Your task to perform on an android device: toggle translation in the chrome app Image 0: 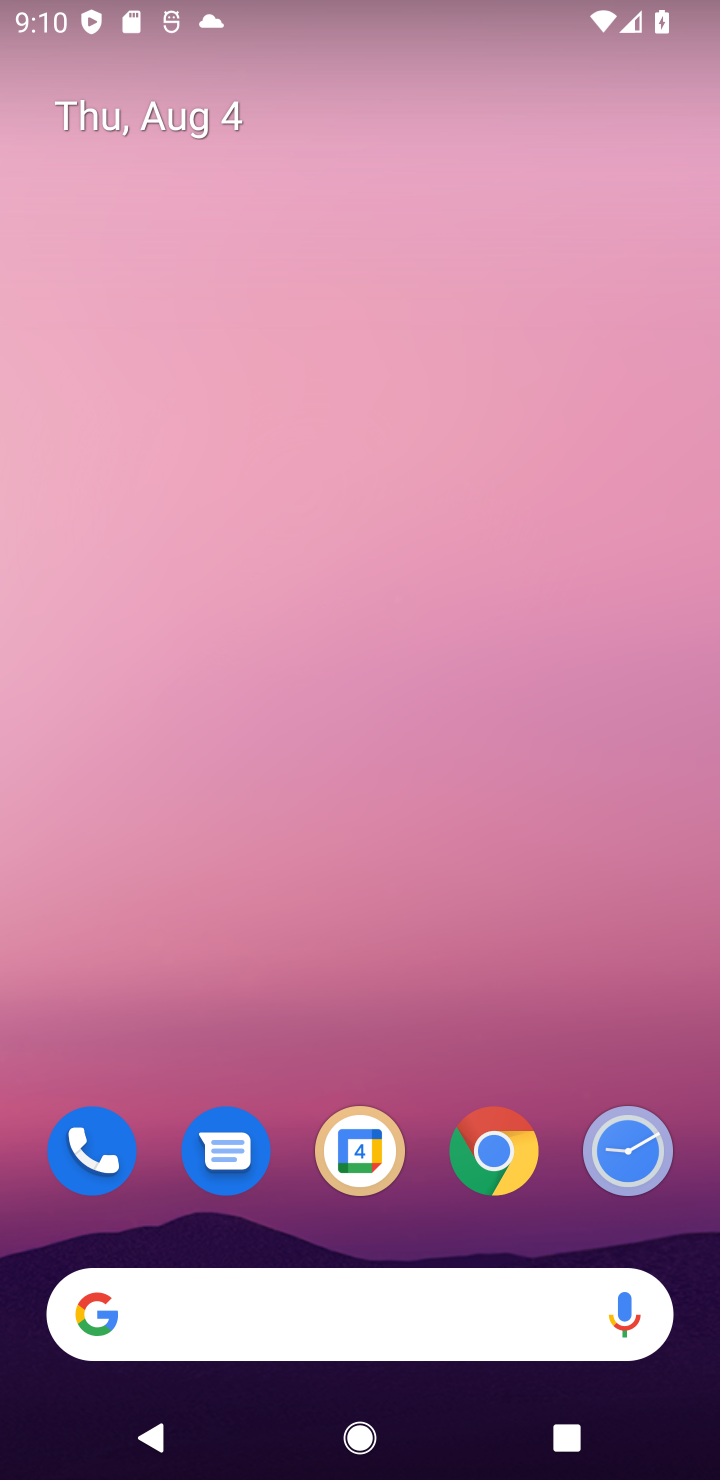
Step 0: click (535, 1157)
Your task to perform on an android device: toggle translation in the chrome app Image 1: 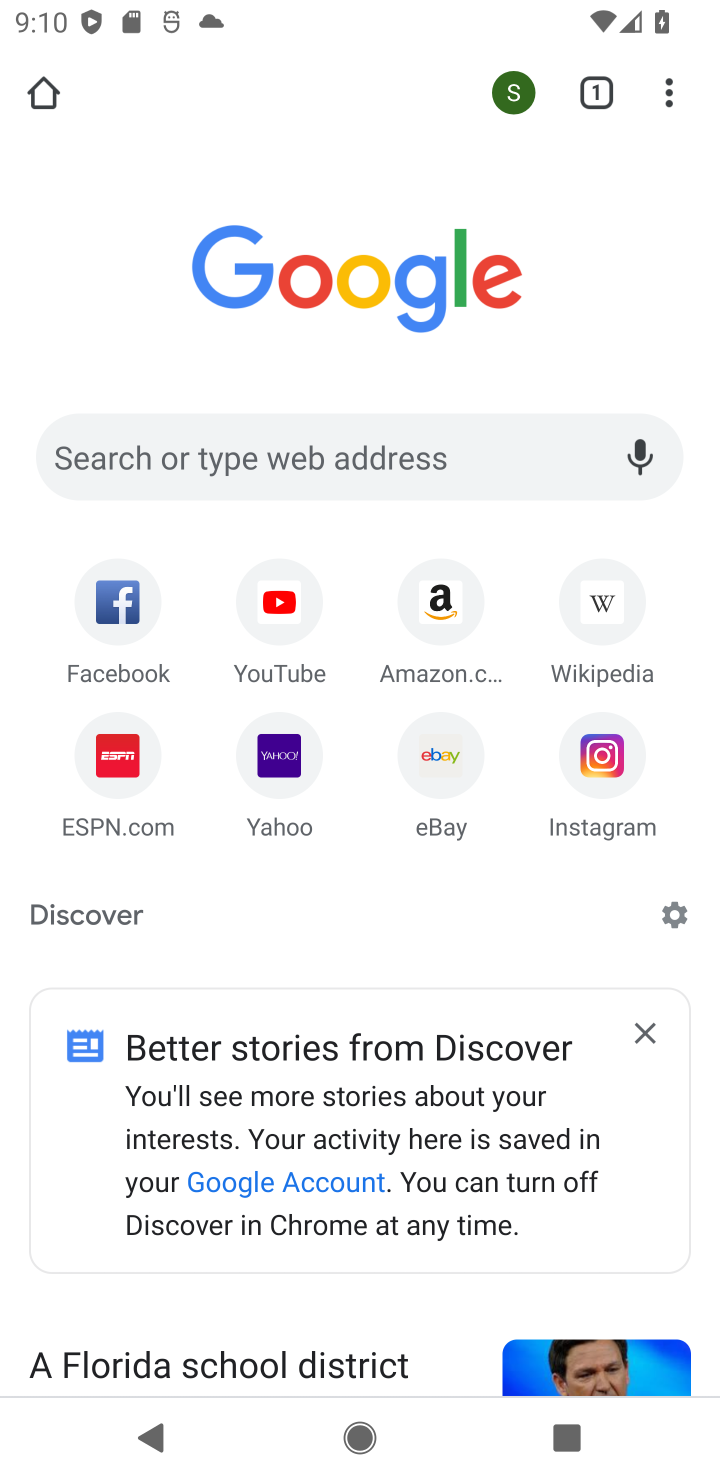
Step 1: click (675, 118)
Your task to perform on an android device: toggle translation in the chrome app Image 2: 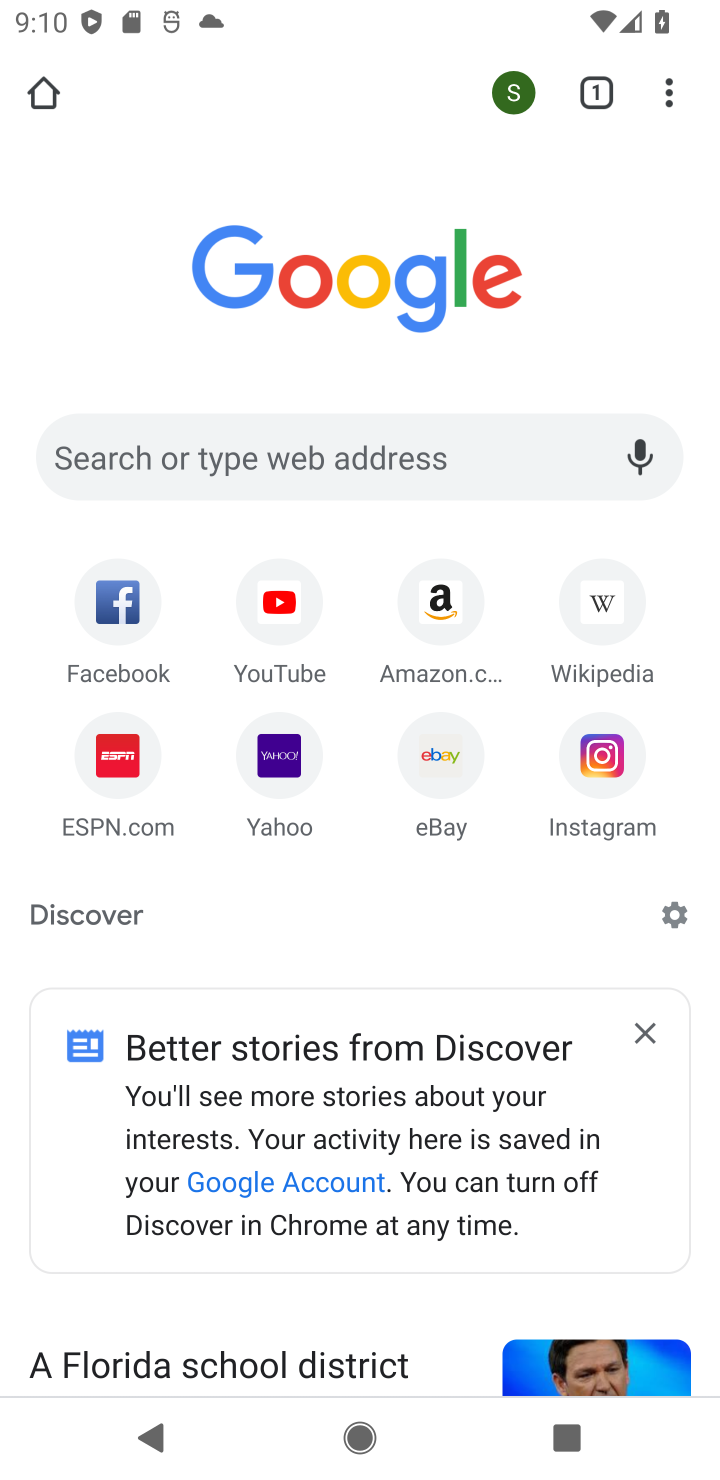
Step 2: click (690, 90)
Your task to perform on an android device: toggle translation in the chrome app Image 3: 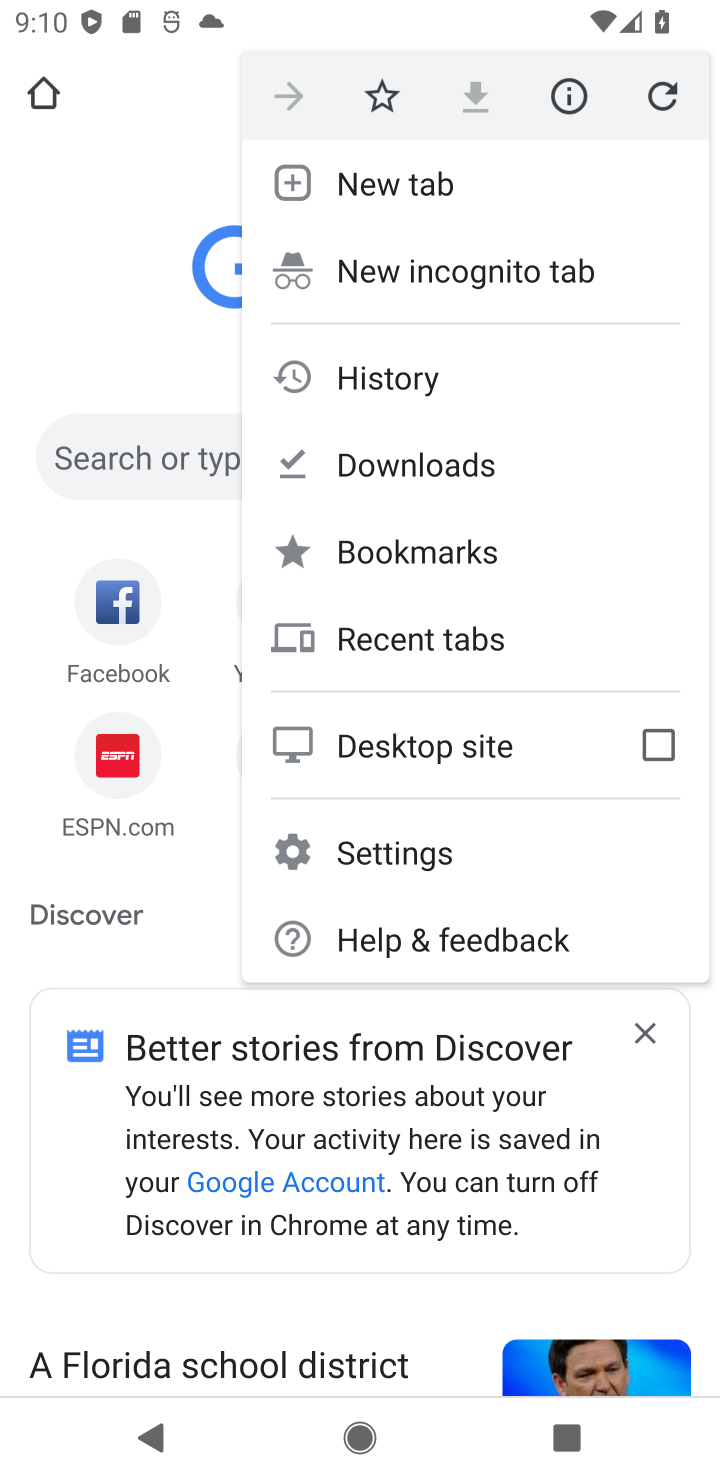
Step 3: click (494, 869)
Your task to perform on an android device: toggle translation in the chrome app Image 4: 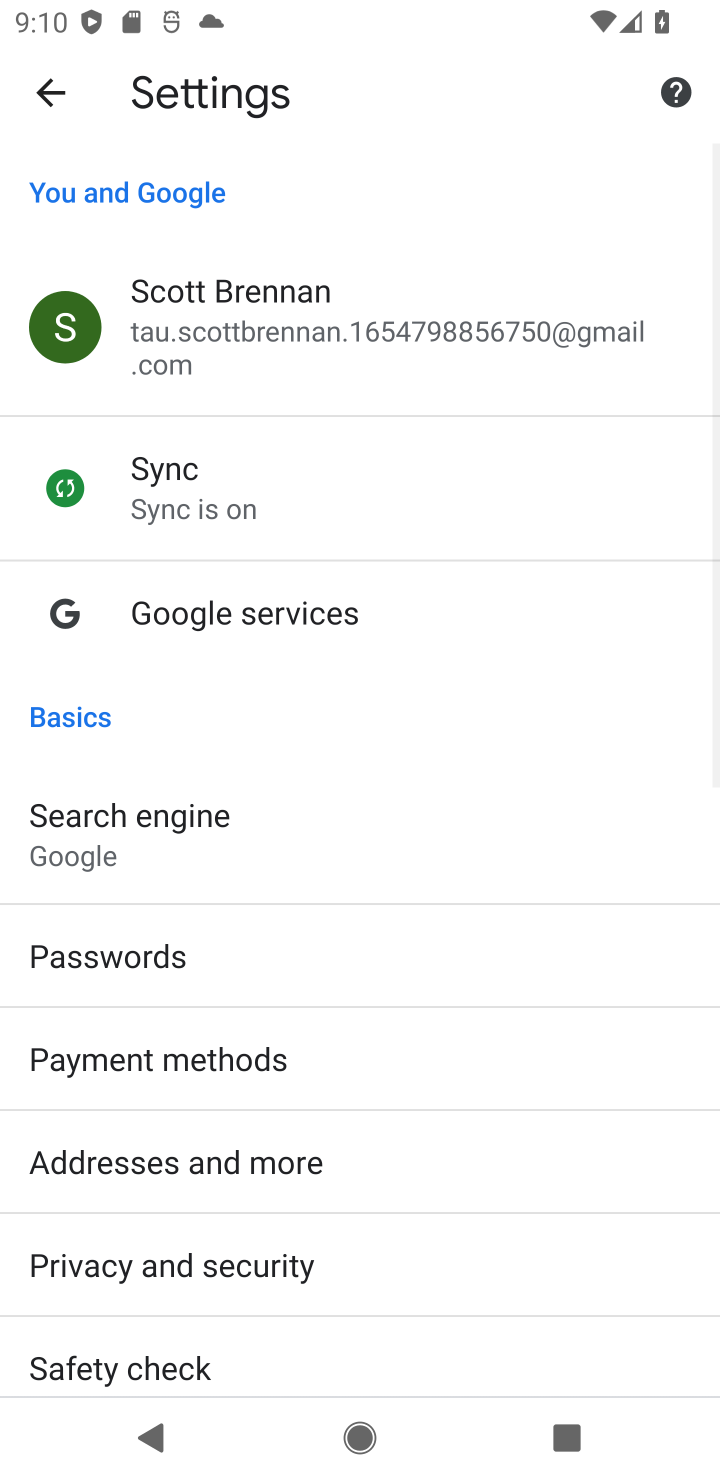
Step 4: drag from (459, 1081) to (362, 346)
Your task to perform on an android device: toggle translation in the chrome app Image 5: 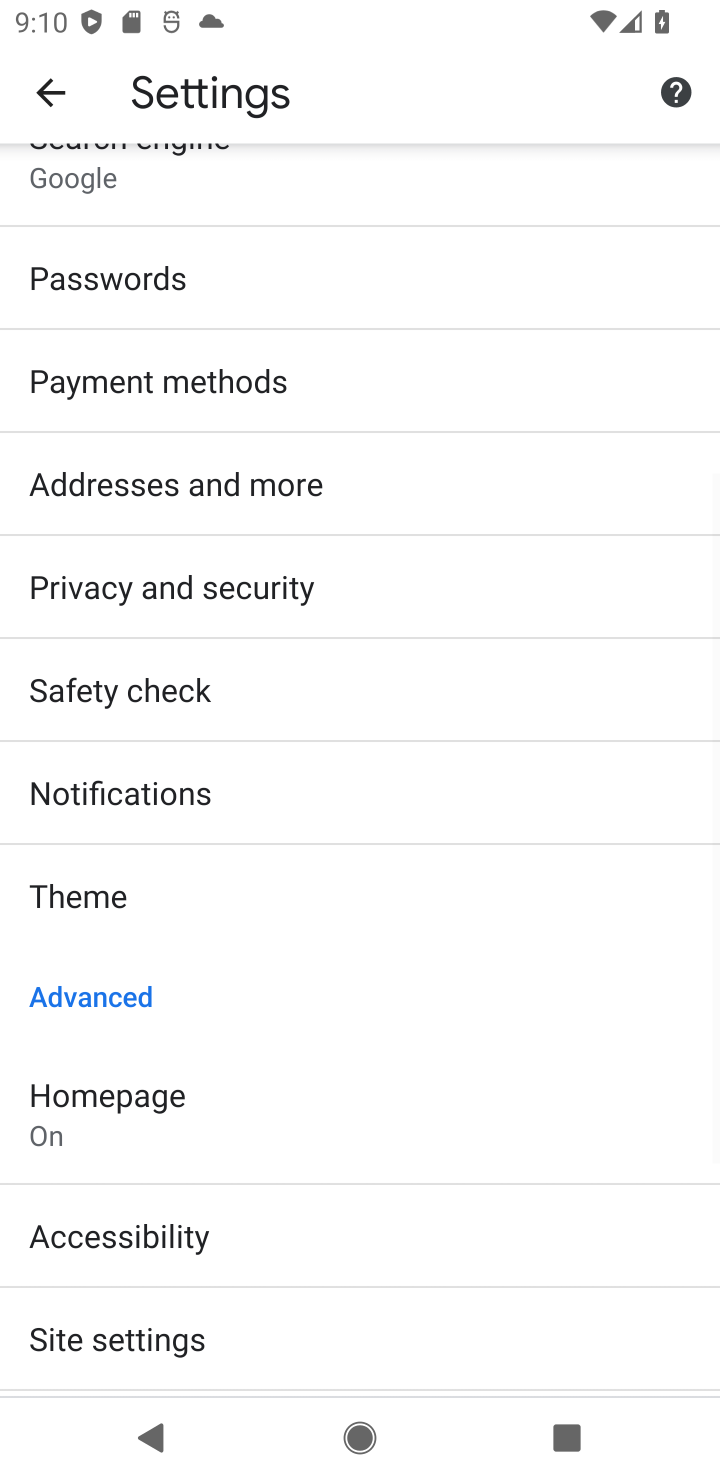
Step 5: drag from (281, 1281) to (165, 450)
Your task to perform on an android device: toggle translation in the chrome app Image 6: 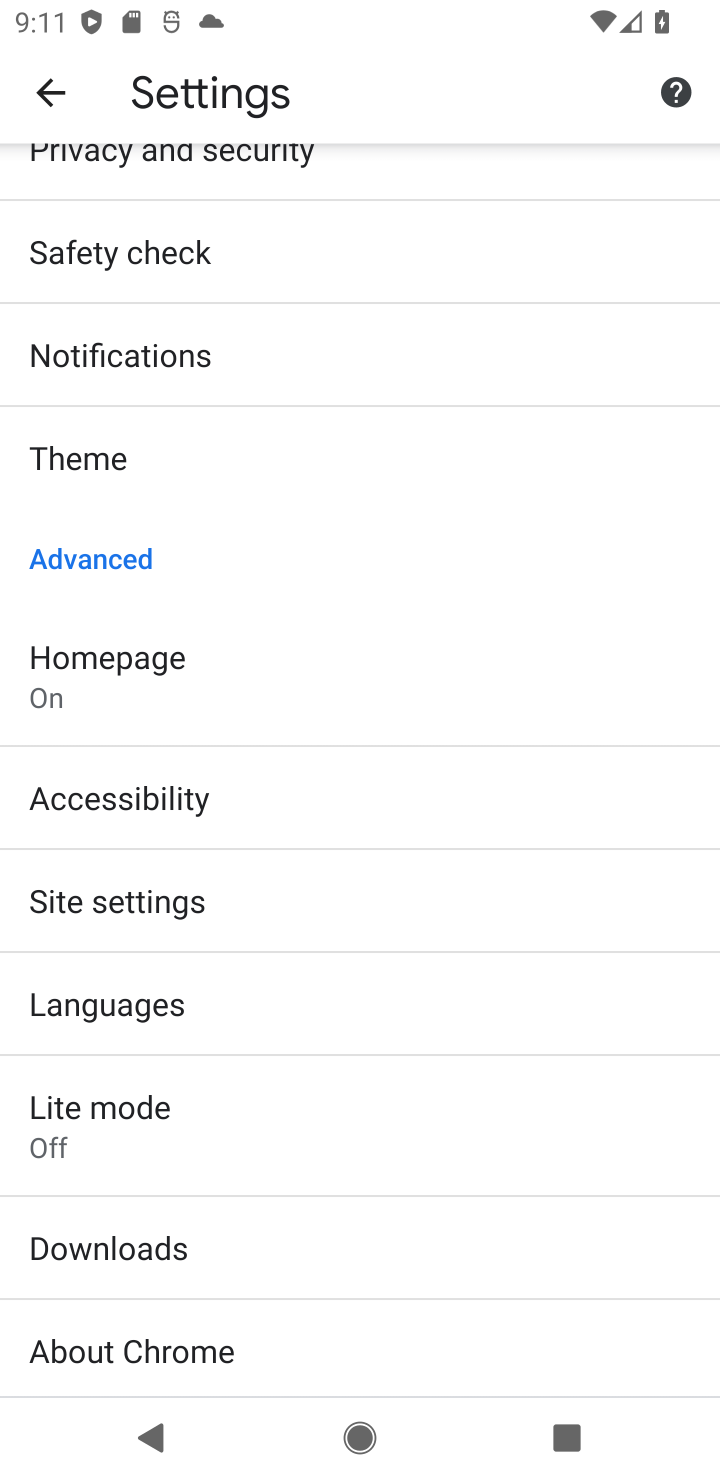
Step 6: click (113, 975)
Your task to perform on an android device: toggle translation in the chrome app Image 7: 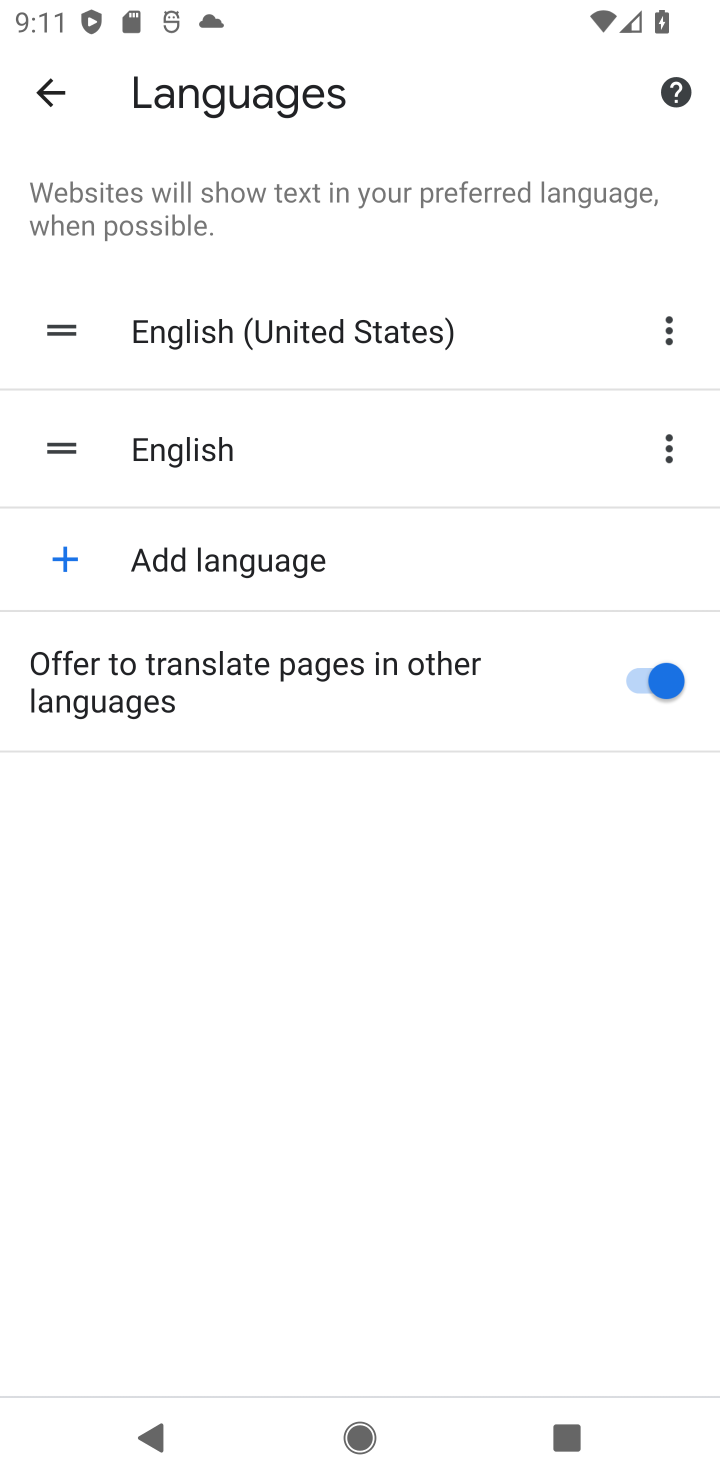
Step 7: click (674, 701)
Your task to perform on an android device: toggle translation in the chrome app Image 8: 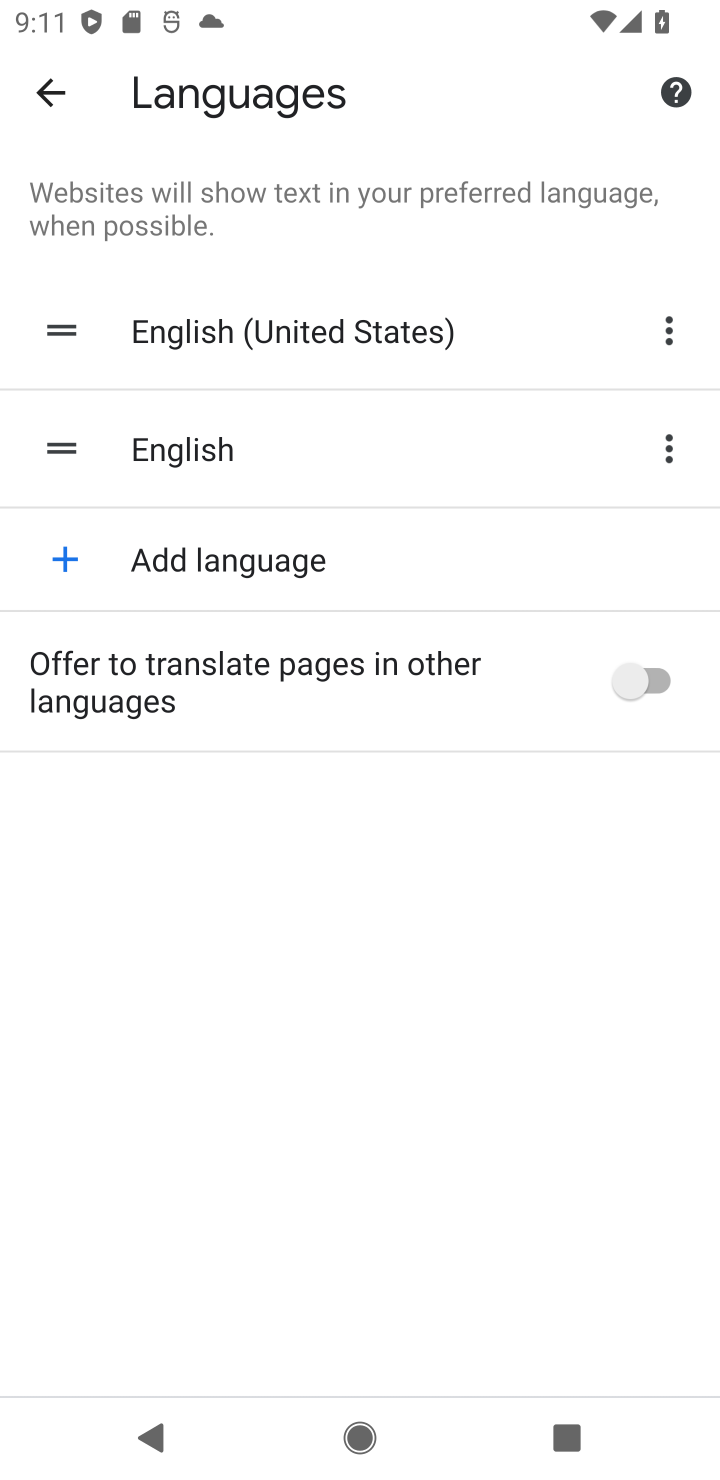
Step 8: task complete